Your task to perform on an android device: Go to CNN.com Image 0: 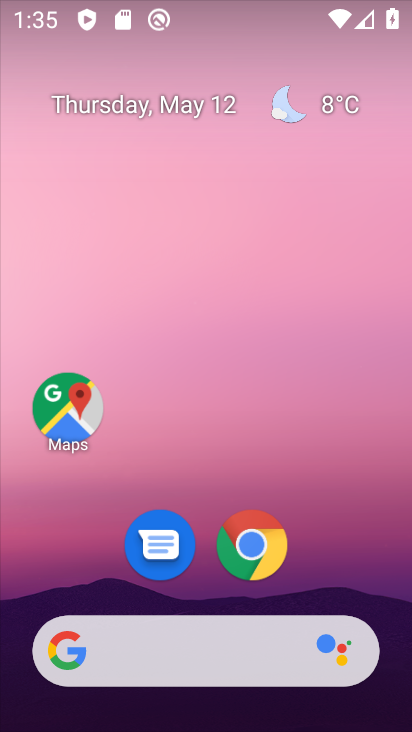
Step 0: click (197, 638)
Your task to perform on an android device: Go to CNN.com Image 1: 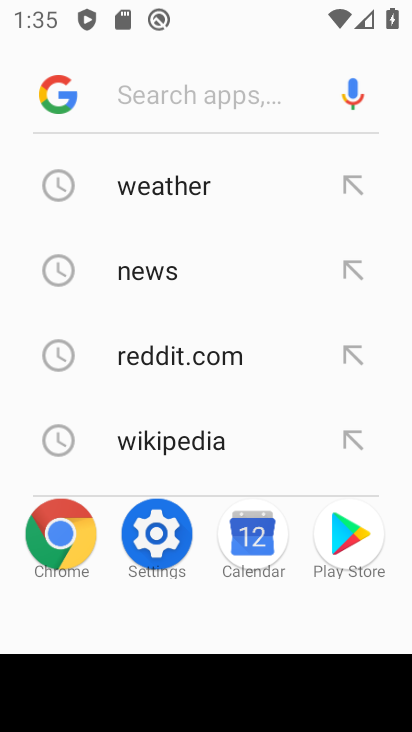
Step 1: click (180, 100)
Your task to perform on an android device: Go to CNN.com Image 2: 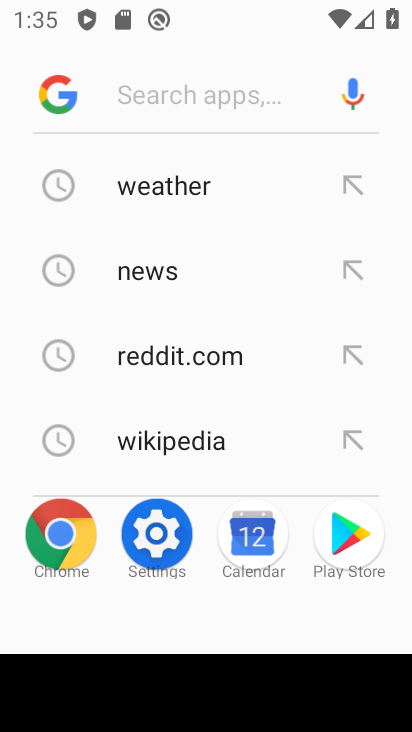
Step 2: type "cnn.com"
Your task to perform on an android device: Go to CNN.com Image 3: 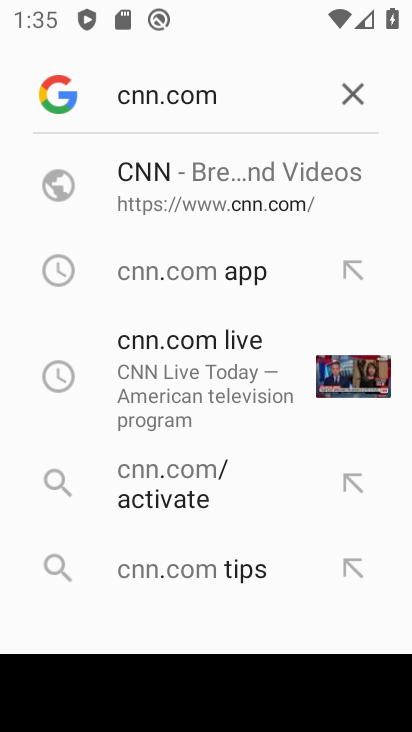
Step 3: click (158, 179)
Your task to perform on an android device: Go to CNN.com Image 4: 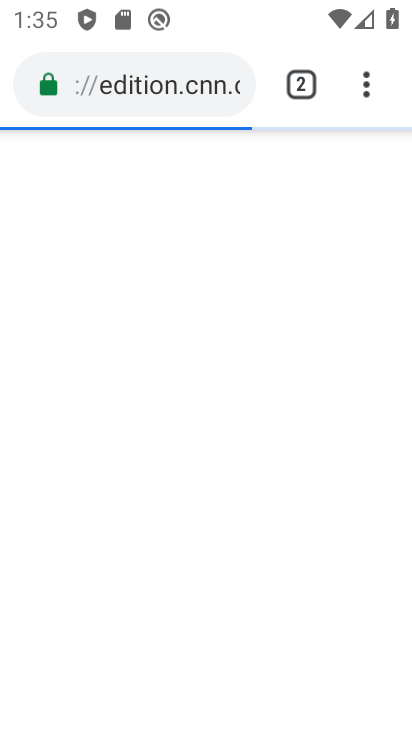
Step 4: task complete